Your task to perform on an android device: toggle location history Image 0: 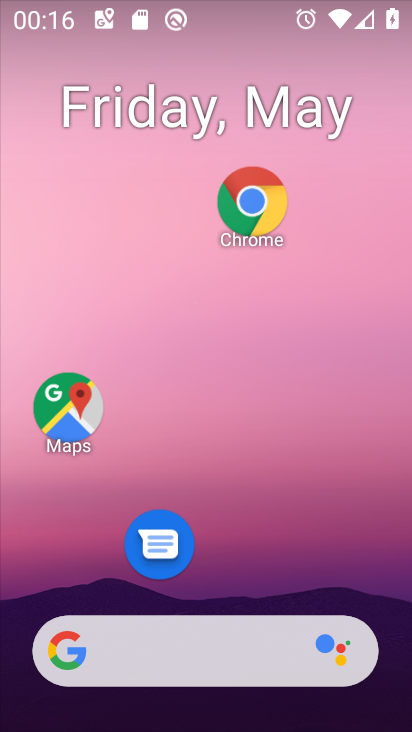
Step 0: press home button
Your task to perform on an android device: toggle location history Image 1: 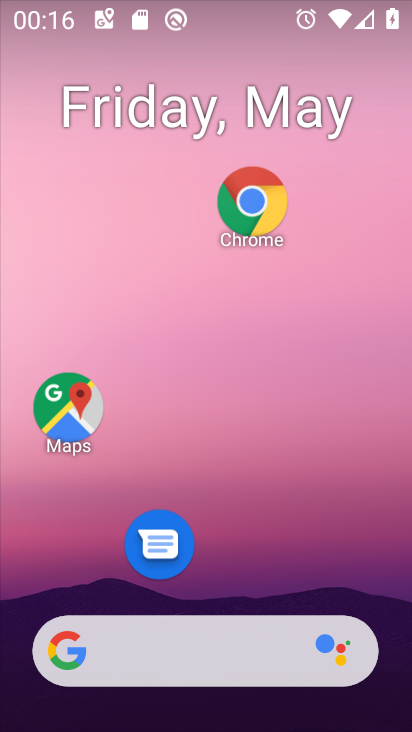
Step 1: drag from (220, 600) to (241, 85)
Your task to perform on an android device: toggle location history Image 2: 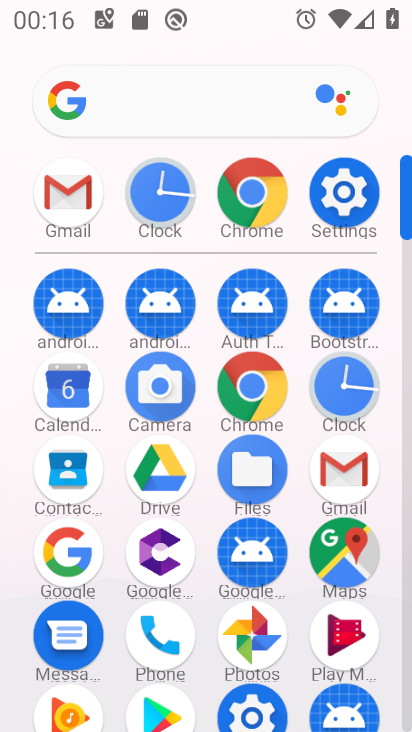
Step 2: click (343, 189)
Your task to perform on an android device: toggle location history Image 3: 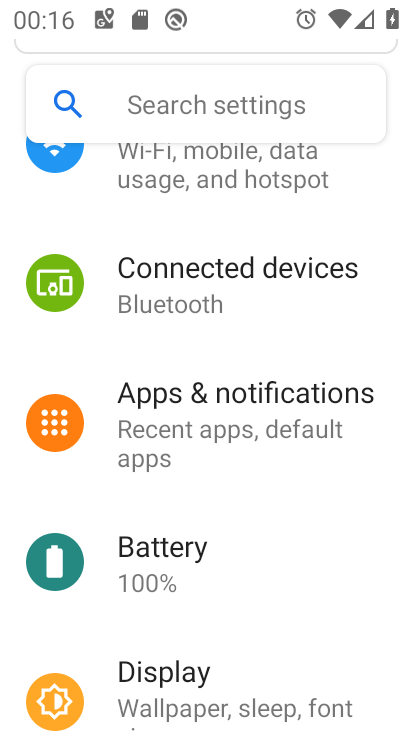
Step 3: drag from (240, 658) to (263, 128)
Your task to perform on an android device: toggle location history Image 4: 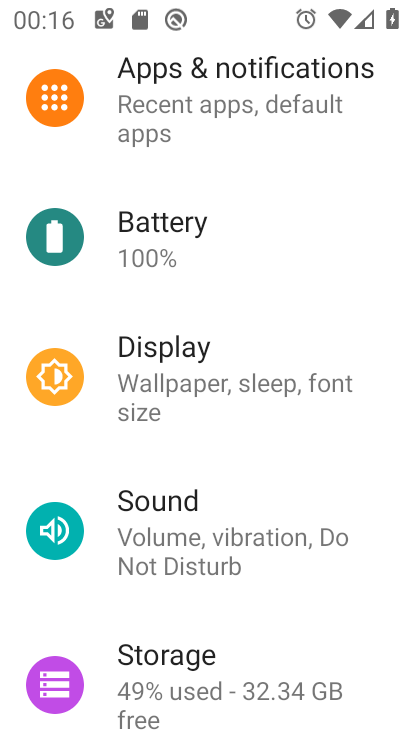
Step 4: drag from (238, 672) to (274, 190)
Your task to perform on an android device: toggle location history Image 5: 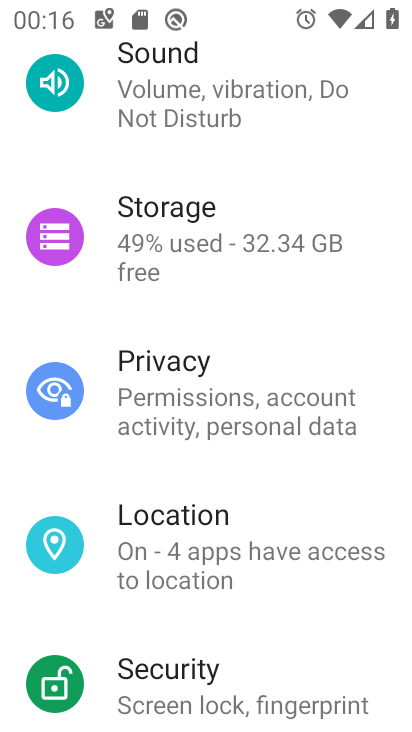
Step 5: click (239, 213)
Your task to perform on an android device: toggle location history Image 6: 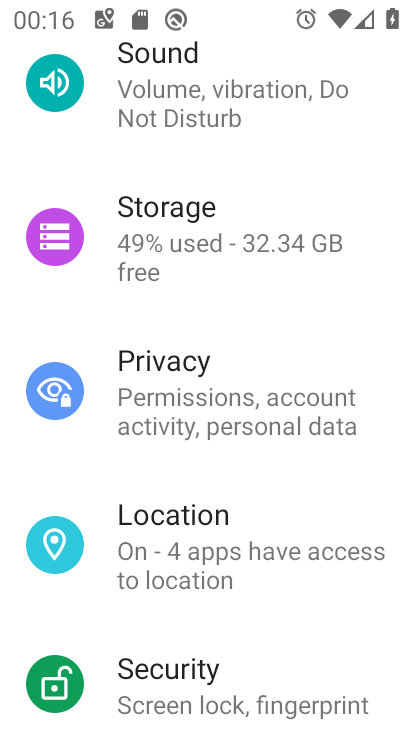
Step 6: click (241, 524)
Your task to perform on an android device: toggle location history Image 7: 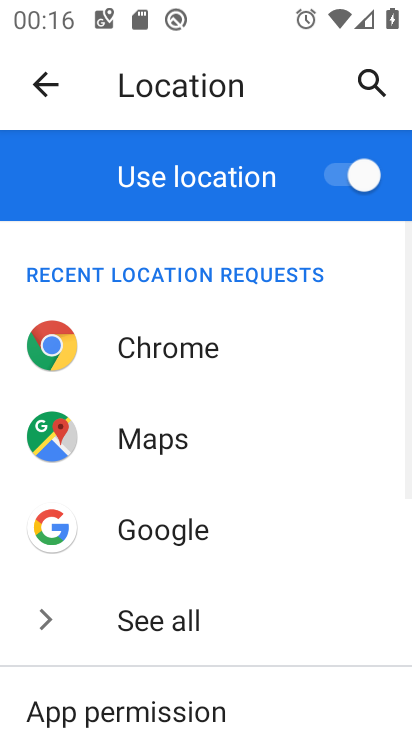
Step 7: drag from (260, 457) to (284, 310)
Your task to perform on an android device: toggle location history Image 8: 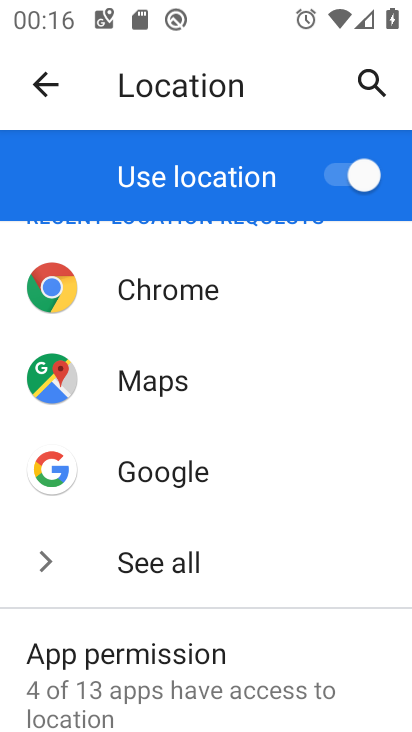
Step 8: drag from (246, 679) to (299, 290)
Your task to perform on an android device: toggle location history Image 9: 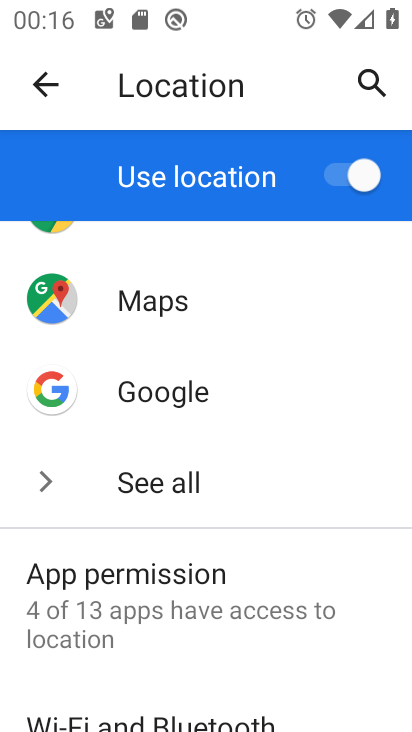
Step 9: drag from (240, 648) to (319, 235)
Your task to perform on an android device: toggle location history Image 10: 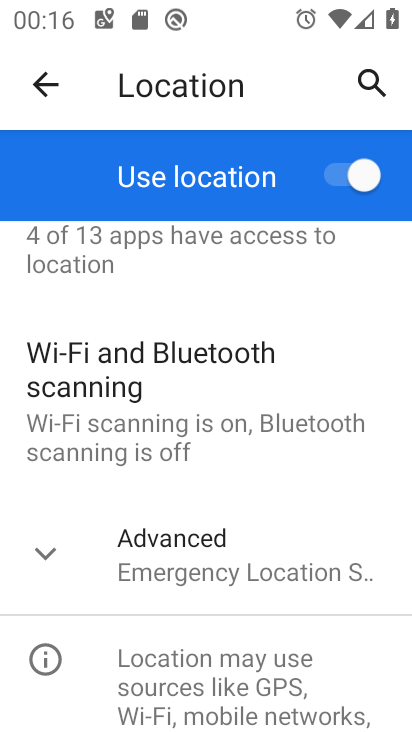
Step 10: click (44, 544)
Your task to perform on an android device: toggle location history Image 11: 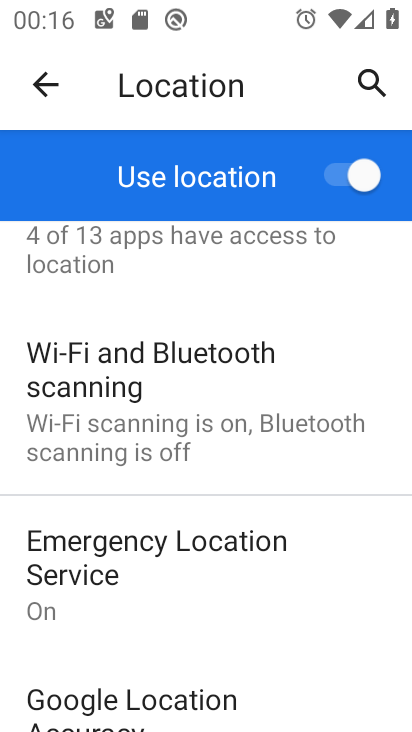
Step 11: drag from (181, 656) to (237, 234)
Your task to perform on an android device: toggle location history Image 12: 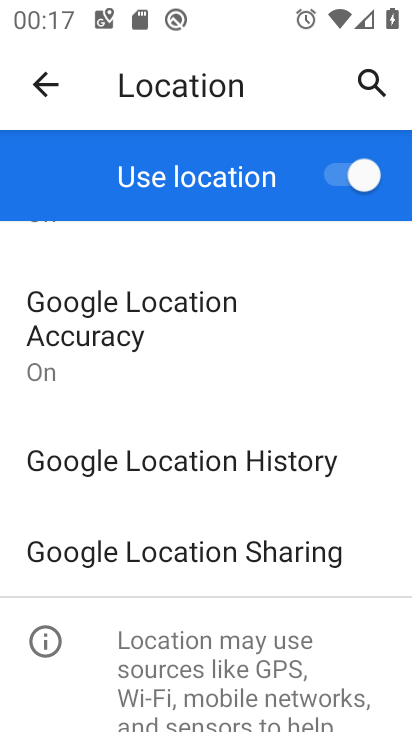
Step 12: click (347, 451)
Your task to perform on an android device: toggle location history Image 13: 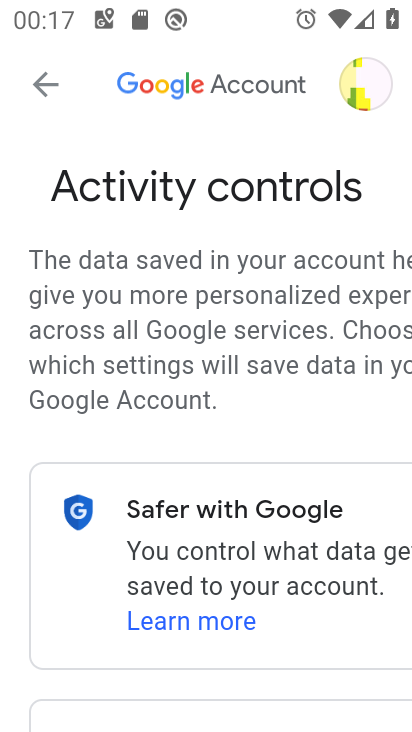
Step 13: task complete